Your task to perform on an android device: change the clock style Image 0: 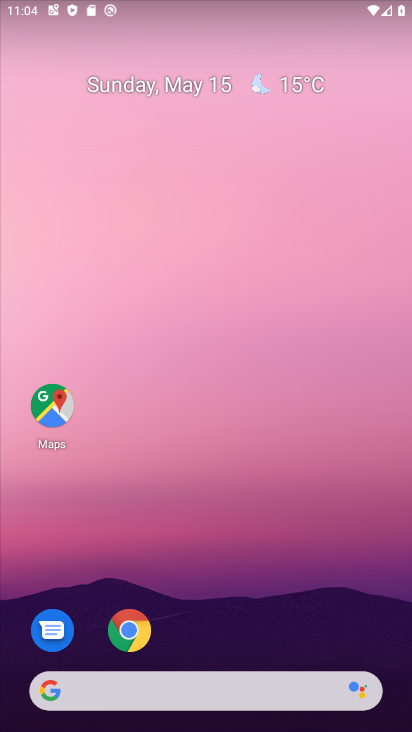
Step 0: drag from (211, 717) to (177, 259)
Your task to perform on an android device: change the clock style Image 1: 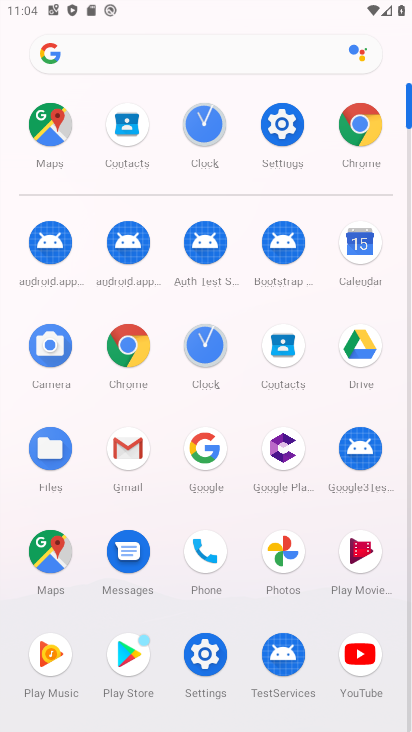
Step 1: click (197, 347)
Your task to perform on an android device: change the clock style Image 2: 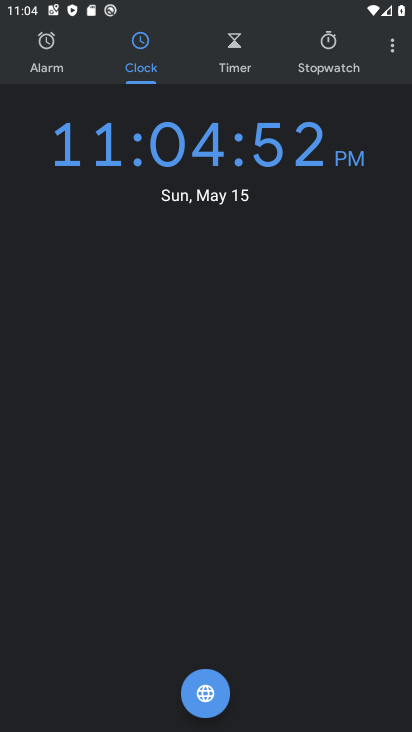
Step 2: click (391, 50)
Your task to perform on an android device: change the clock style Image 3: 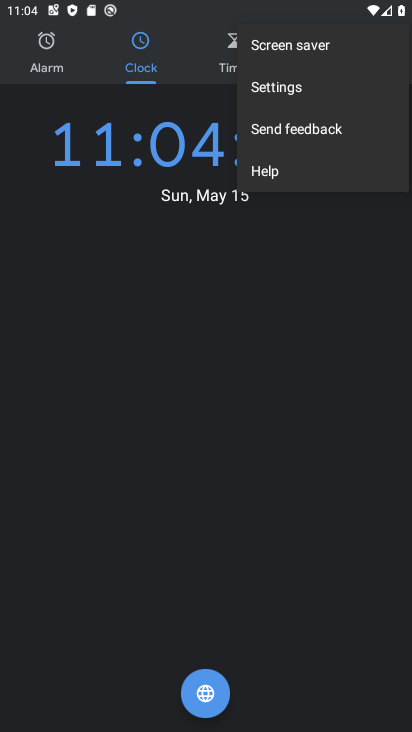
Step 3: click (287, 91)
Your task to perform on an android device: change the clock style Image 4: 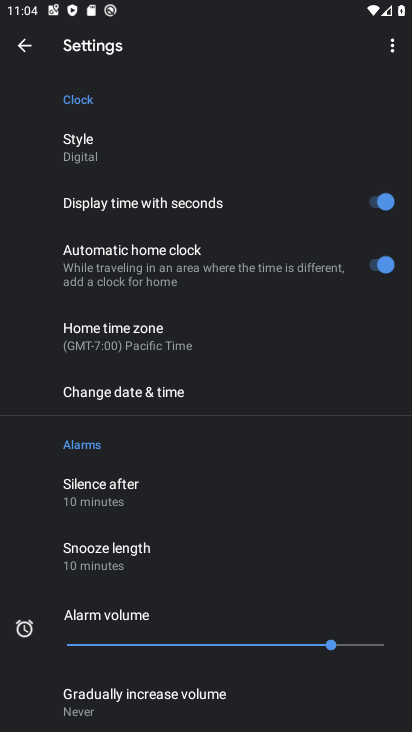
Step 4: click (86, 146)
Your task to perform on an android device: change the clock style Image 5: 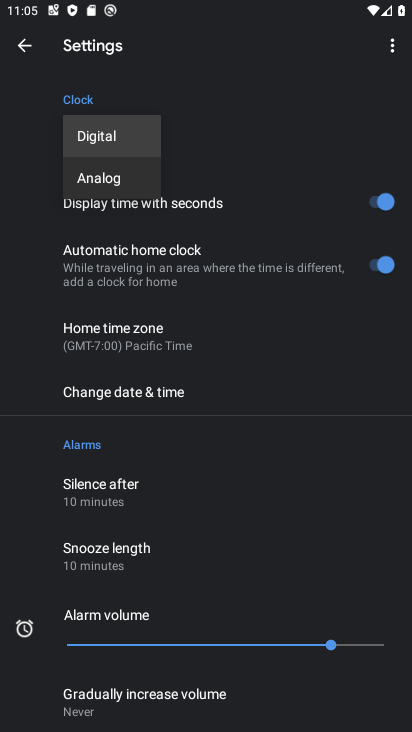
Step 5: click (99, 180)
Your task to perform on an android device: change the clock style Image 6: 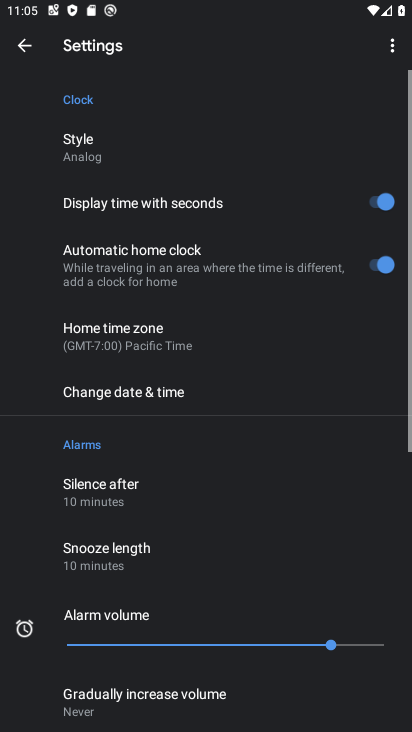
Step 6: task complete